Your task to perform on an android device: Do I have any events today? Image 0: 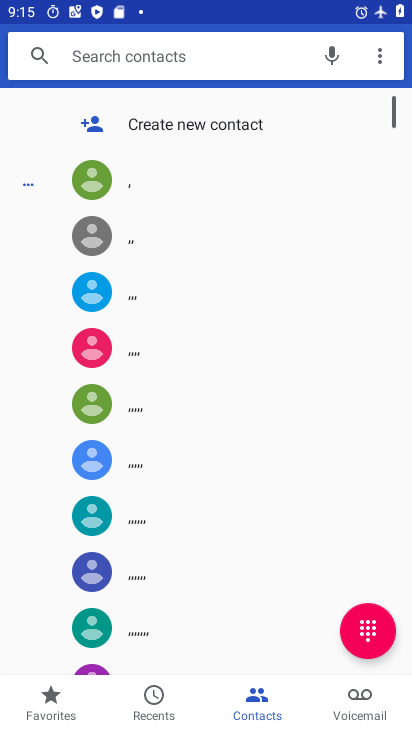
Step 0: press home button
Your task to perform on an android device: Do I have any events today? Image 1: 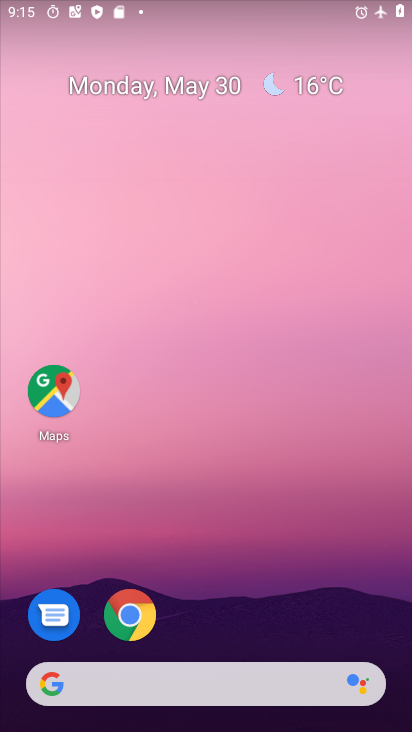
Step 1: drag from (291, 558) to (319, 48)
Your task to perform on an android device: Do I have any events today? Image 2: 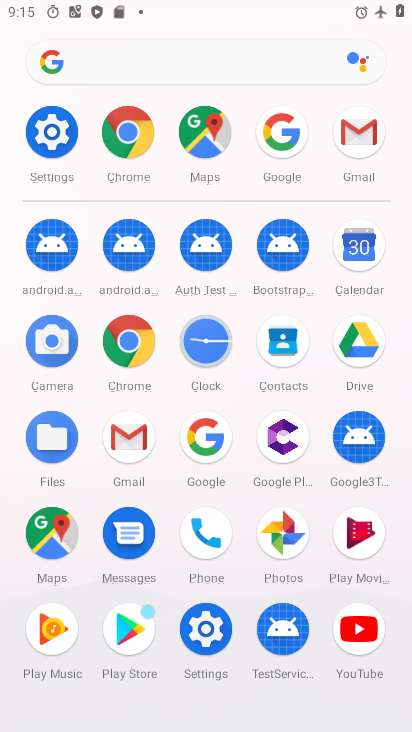
Step 2: click (355, 263)
Your task to perform on an android device: Do I have any events today? Image 3: 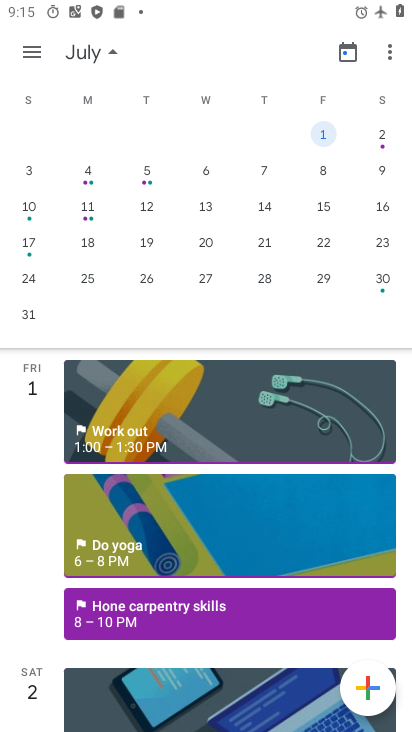
Step 3: task complete